Your task to perform on an android device: Go to ESPN.com Image 0: 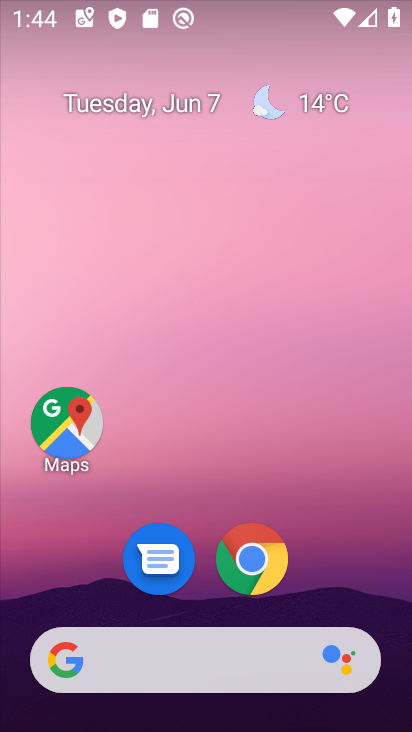
Step 0: drag from (333, 561) to (247, 2)
Your task to perform on an android device: Go to ESPN.com Image 1: 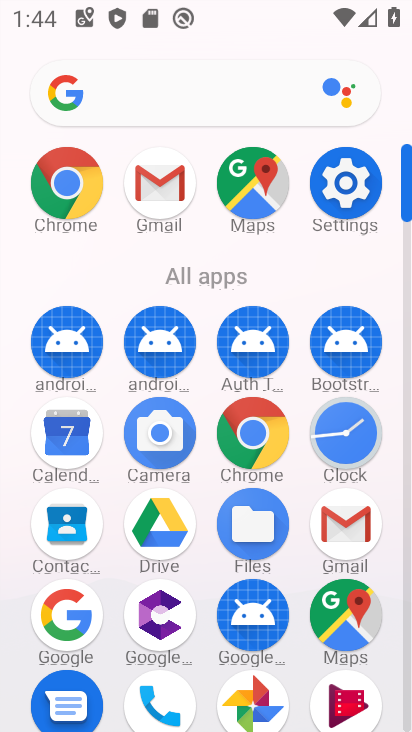
Step 1: drag from (3, 552) to (9, 263)
Your task to perform on an android device: Go to ESPN.com Image 2: 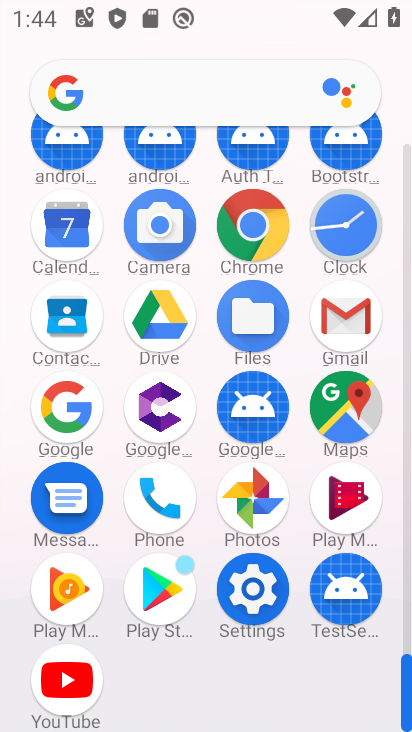
Step 2: click (248, 217)
Your task to perform on an android device: Go to ESPN.com Image 3: 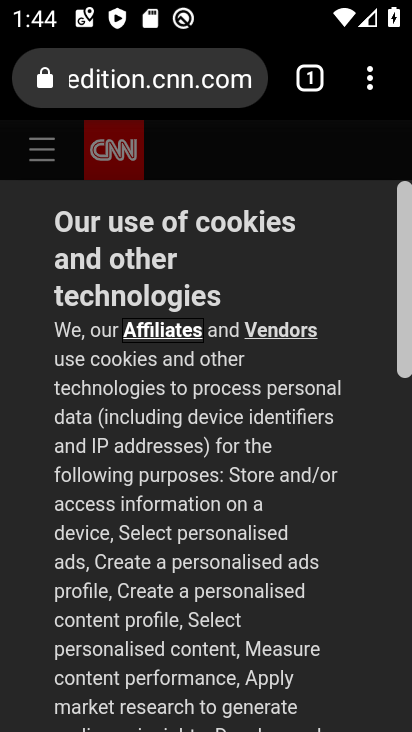
Step 3: click (200, 74)
Your task to perform on an android device: Go to ESPN.com Image 4: 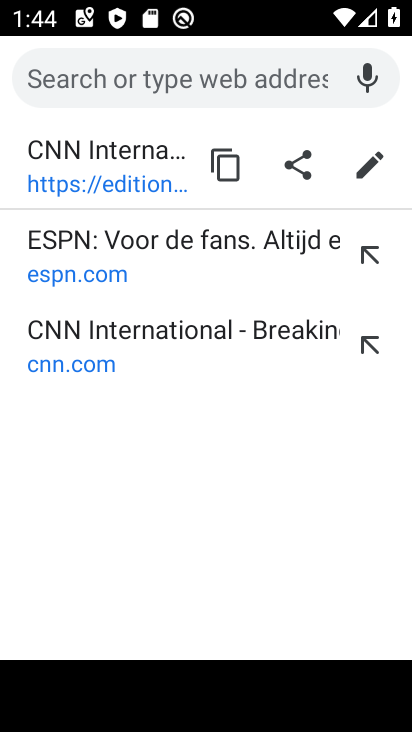
Step 4: click (149, 254)
Your task to perform on an android device: Go to ESPN.com Image 5: 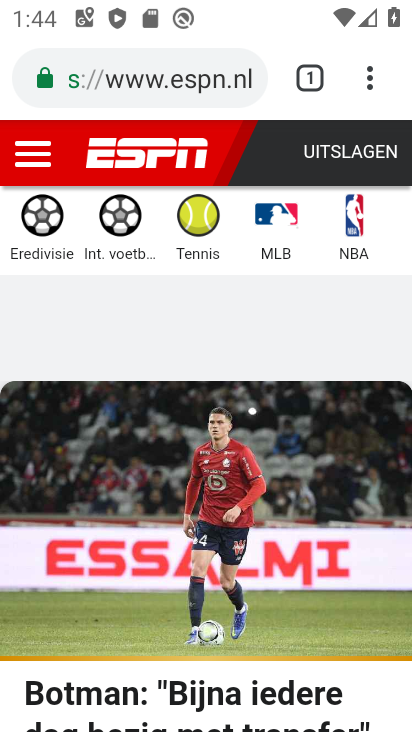
Step 5: task complete